Your task to perform on an android device: See recent photos Image 0: 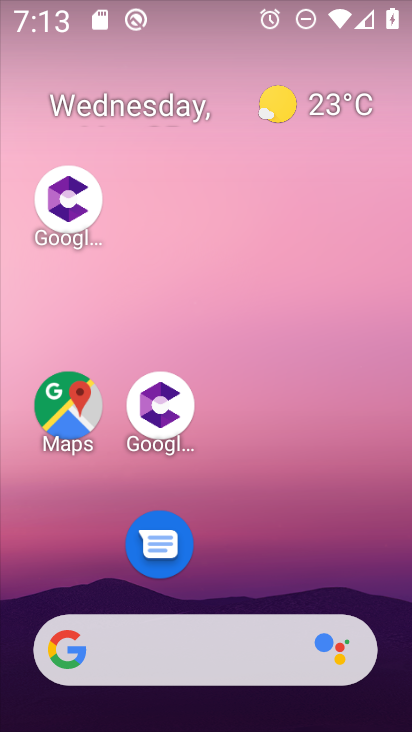
Step 0: drag from (271, 509) to (261, 153)
Your task to perform on an android device: See recent photos Image 1: 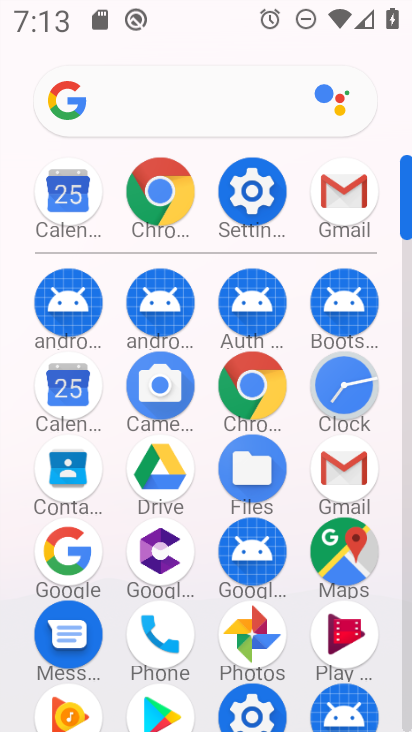
Step 1: click (255, 616)
Your task to perform on an android device: See recent photos Image 2: 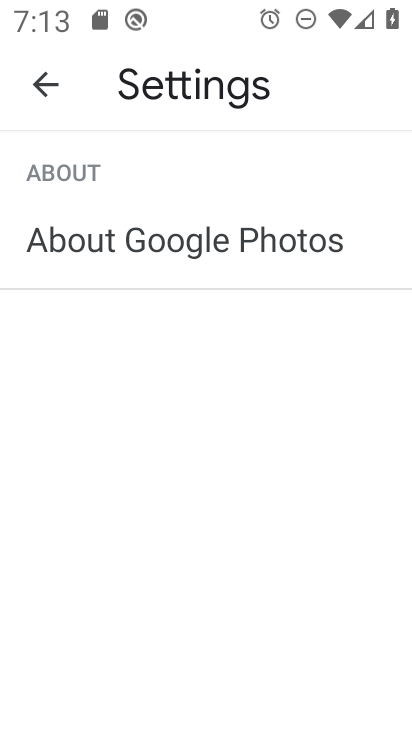
Step 2: click (46, 93)
Your task to perform on an android device: See recent photos Image 3: 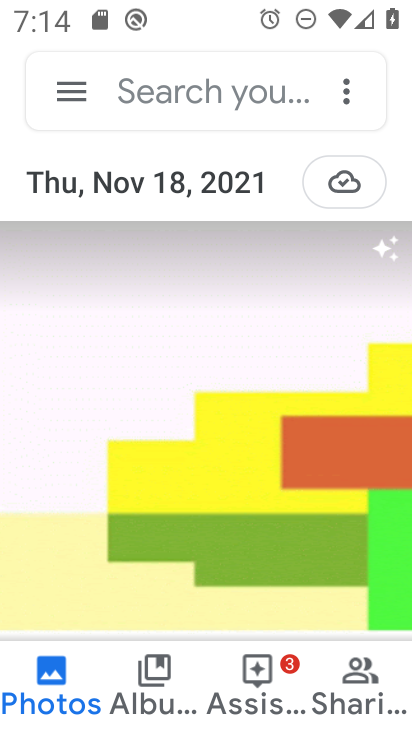
Step 3: task complete